Your task to perform on an android device: uninstall "Clock" Image 0: 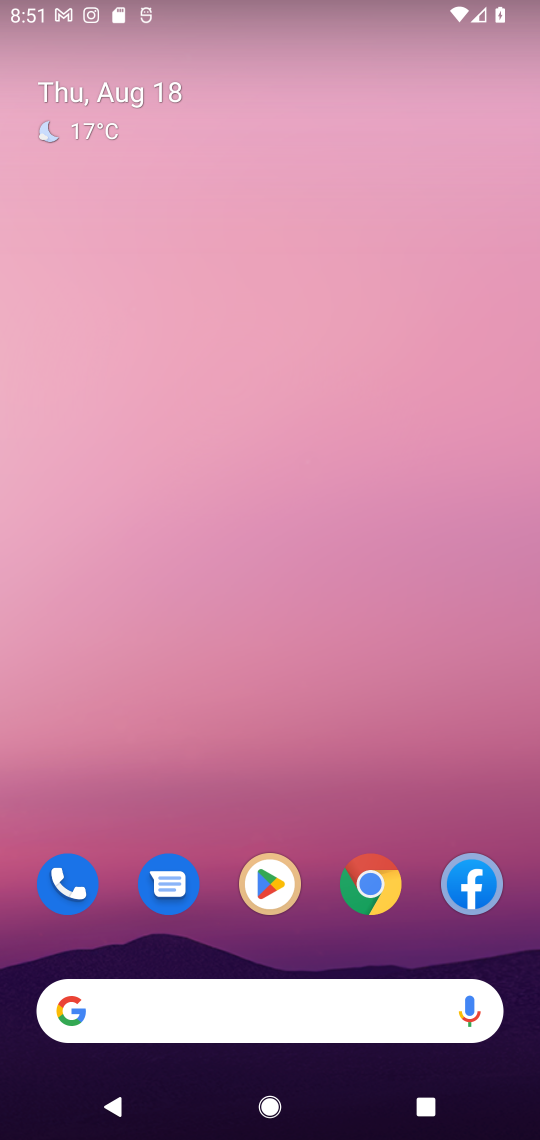
Step 0: drag from (207, 1011) to (245, 16)
Your task to perform on an android device: uninstall "Clock" Image 1: 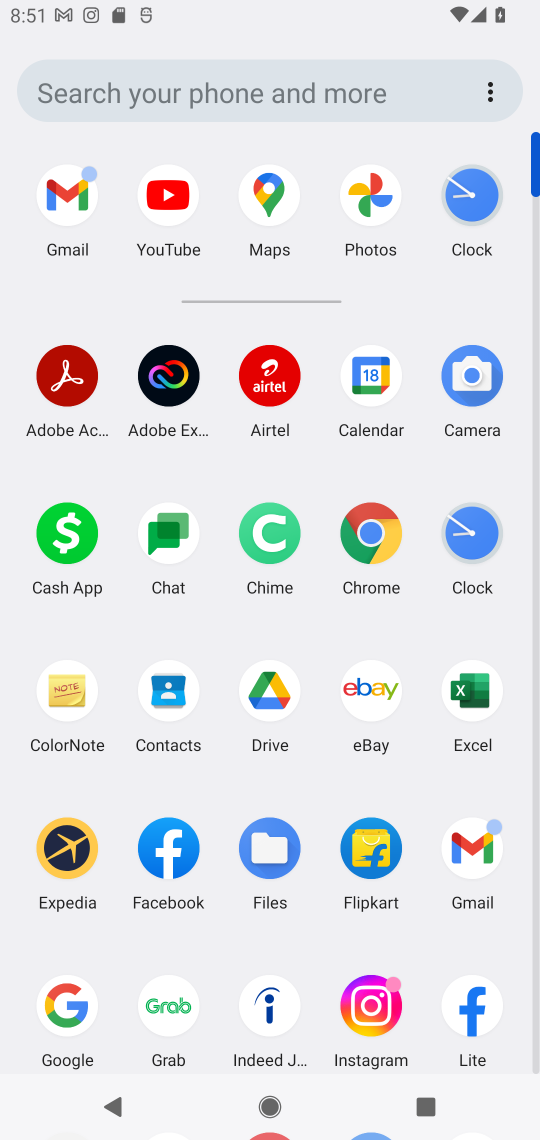
Step 1: drag from (224, 969) to (175, 216)
Your task to perform on an android device: uninstall "Clock" Image 2: 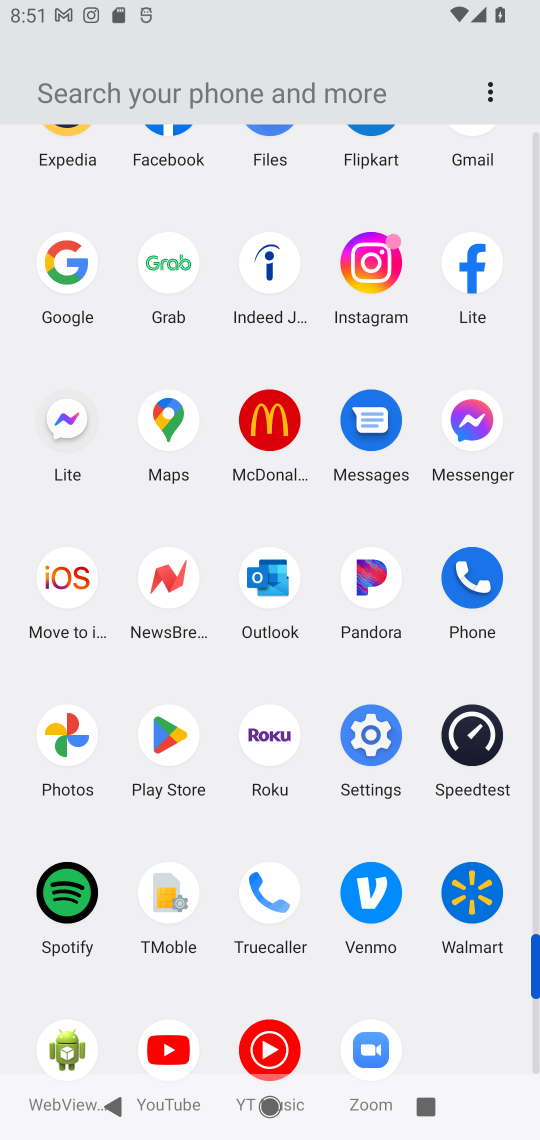
Step 2: click (173, 733)
Your task to perform on an android device: uninstall "Clock" Image 3: 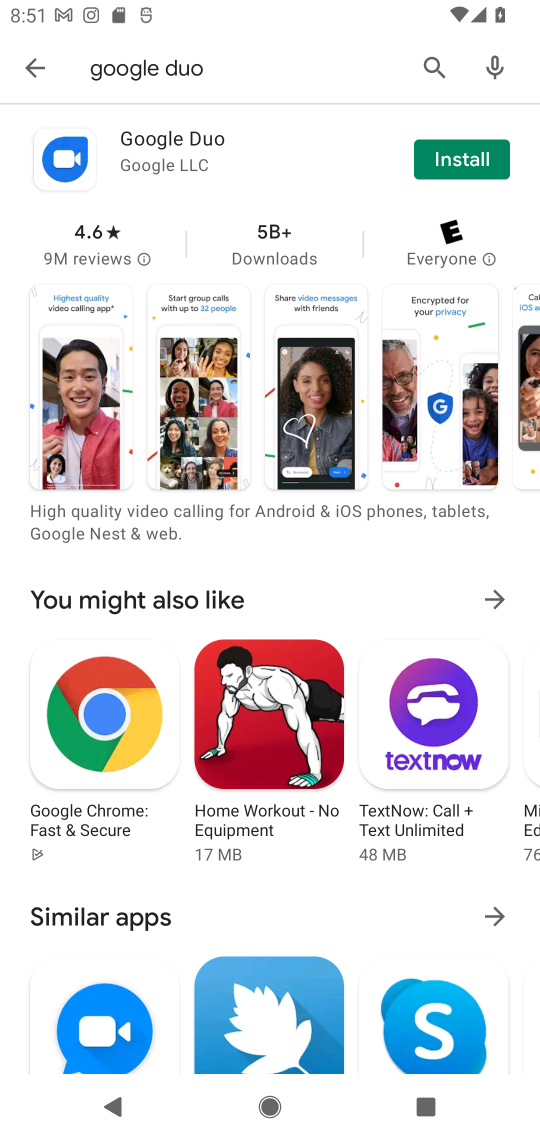
Step 3: press back button
Your task to perform on an android device: uninstall "Clock" Image 4: 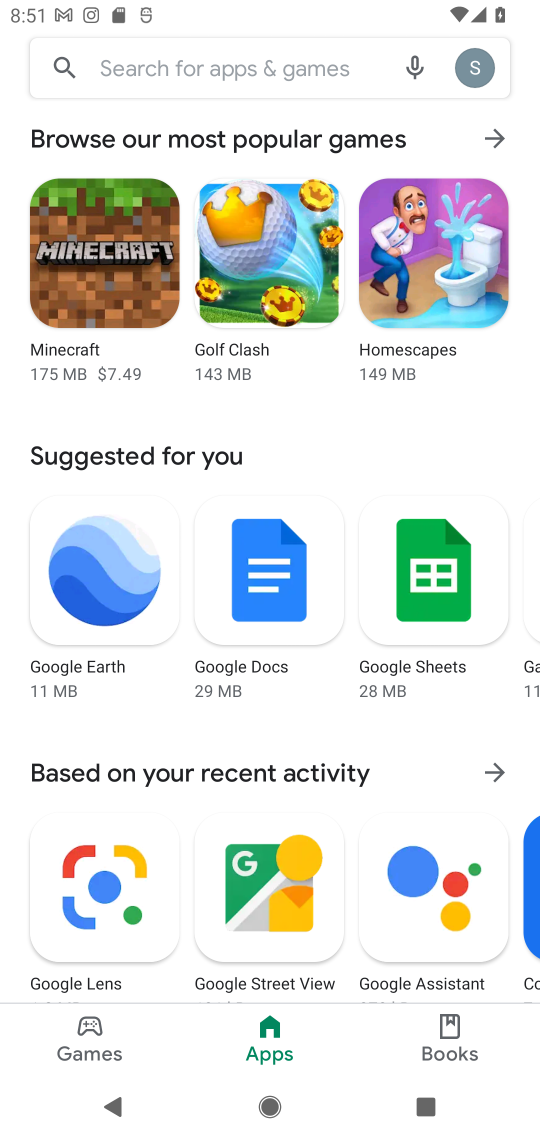
Step 4: click (243, 67)
Your task to perform on an android device: uninstall "Clock" Image 5: 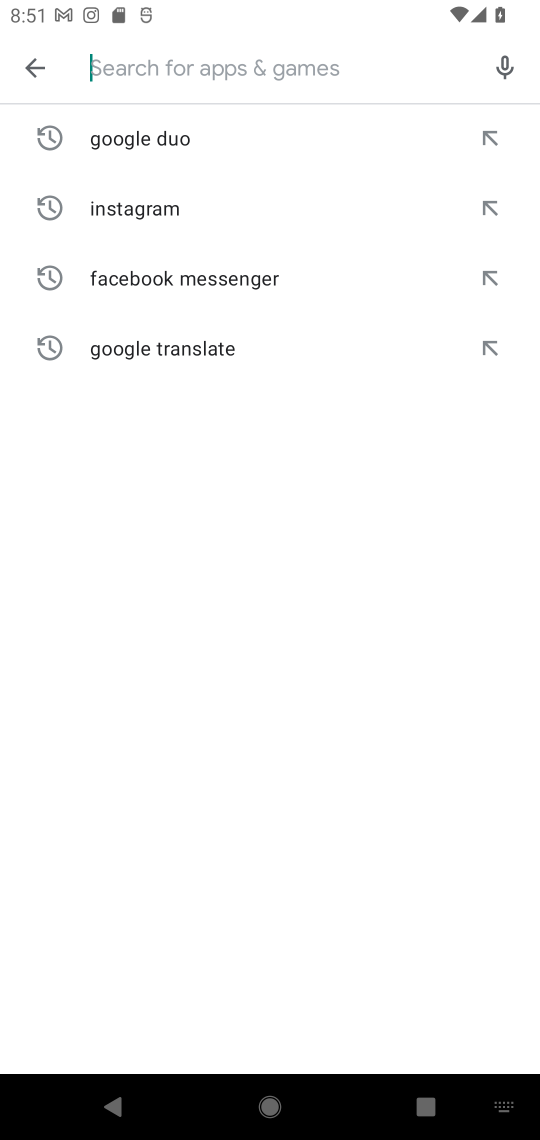
Step 5: type "Clock"
Your task to perform on an android device: uninstall "Clock" Image 6: 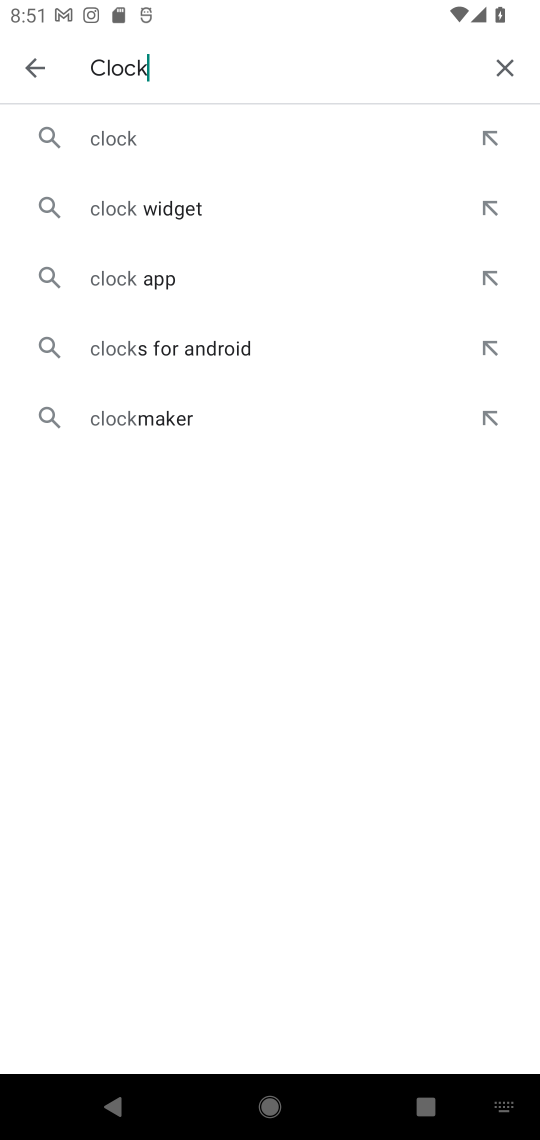
Step 6: click (101, 133)
Your task to perform on an android device: uninstall "Clock" Image 7: 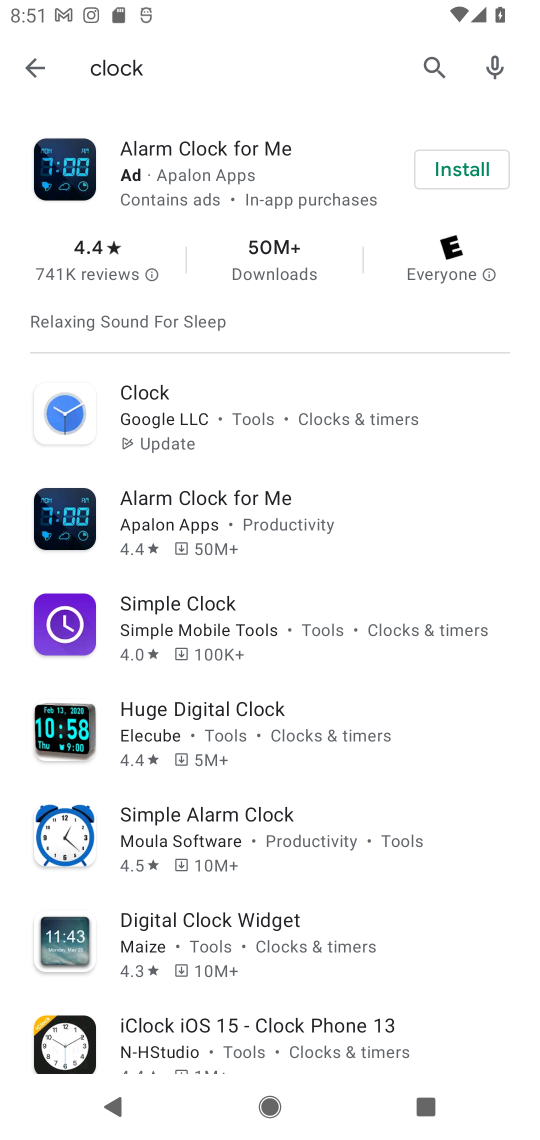
Step 7: click (154, 390)
Your task to perform on an android device: uninstall "Clock" Image 8: 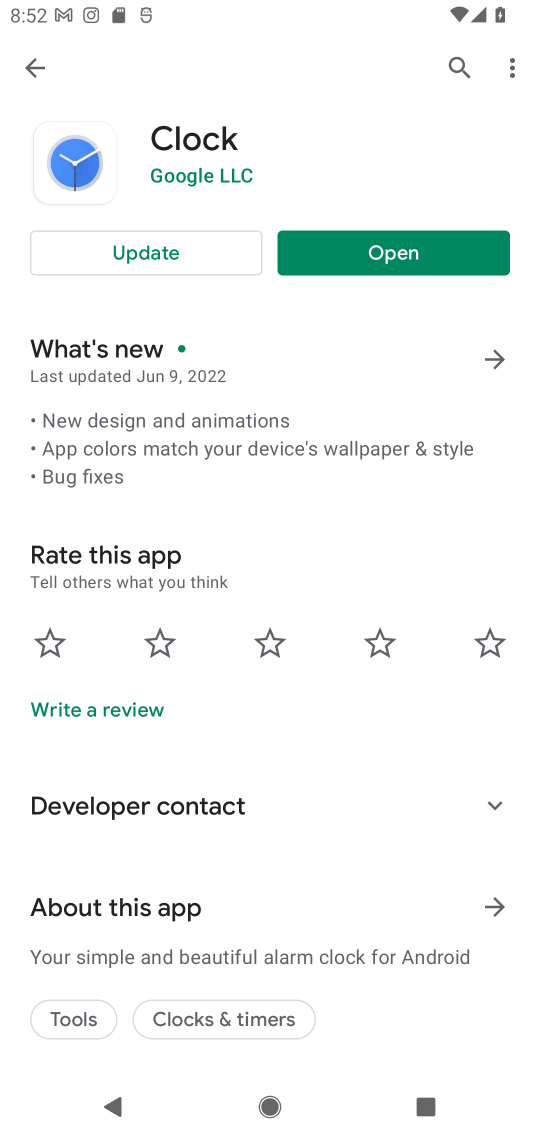
Step 8: click (170, 250)
Your task to perform on an android device: uninstall "Clock" Image 9: 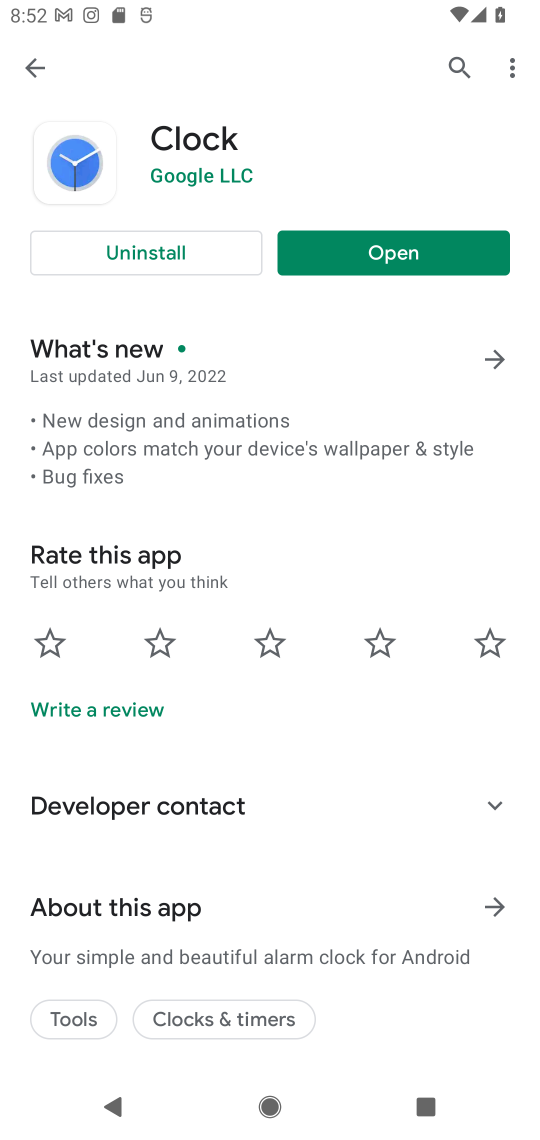
Step 9: click (191, 255)
Your task to perform on an android device: uninstall "Clock" Image 10: 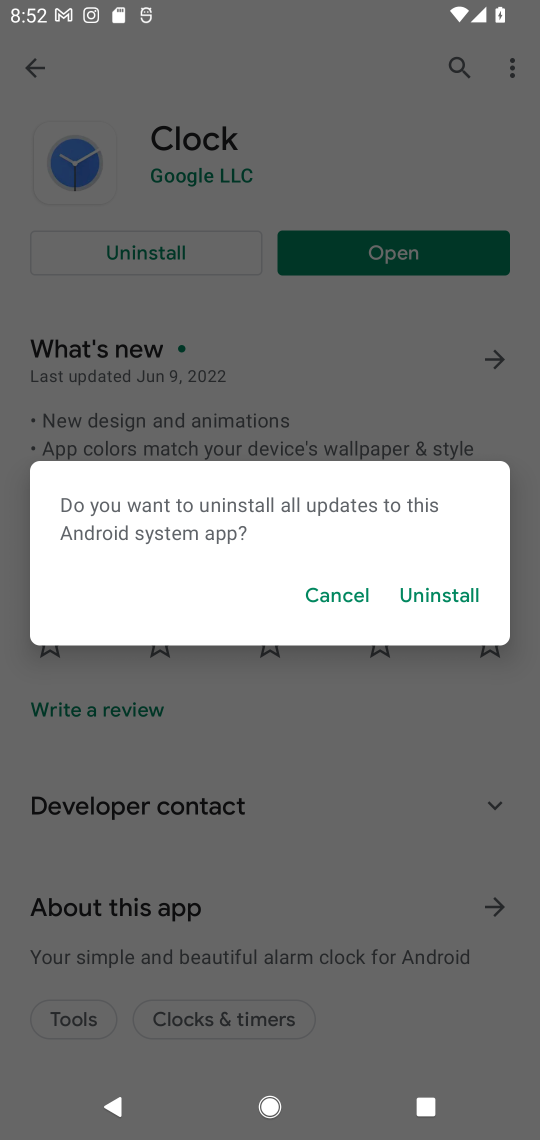
Step 10: click (449, 605)
Your task to perform on an android device: uninstall "Clock" Image 11: 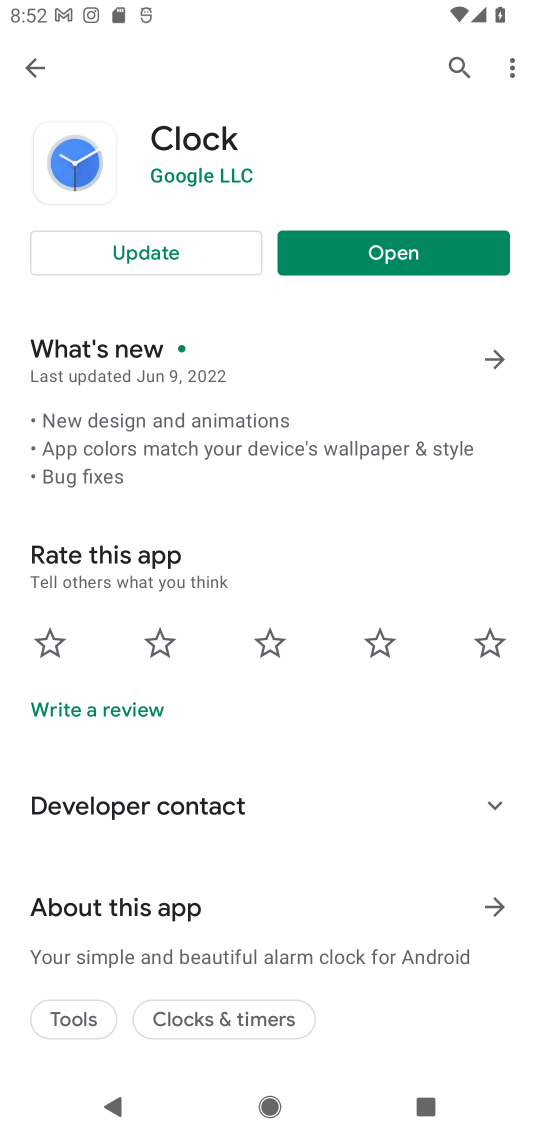
Step 11: task complete